Your task to perform on an android device: Clear the cart on walmart. Image 0: 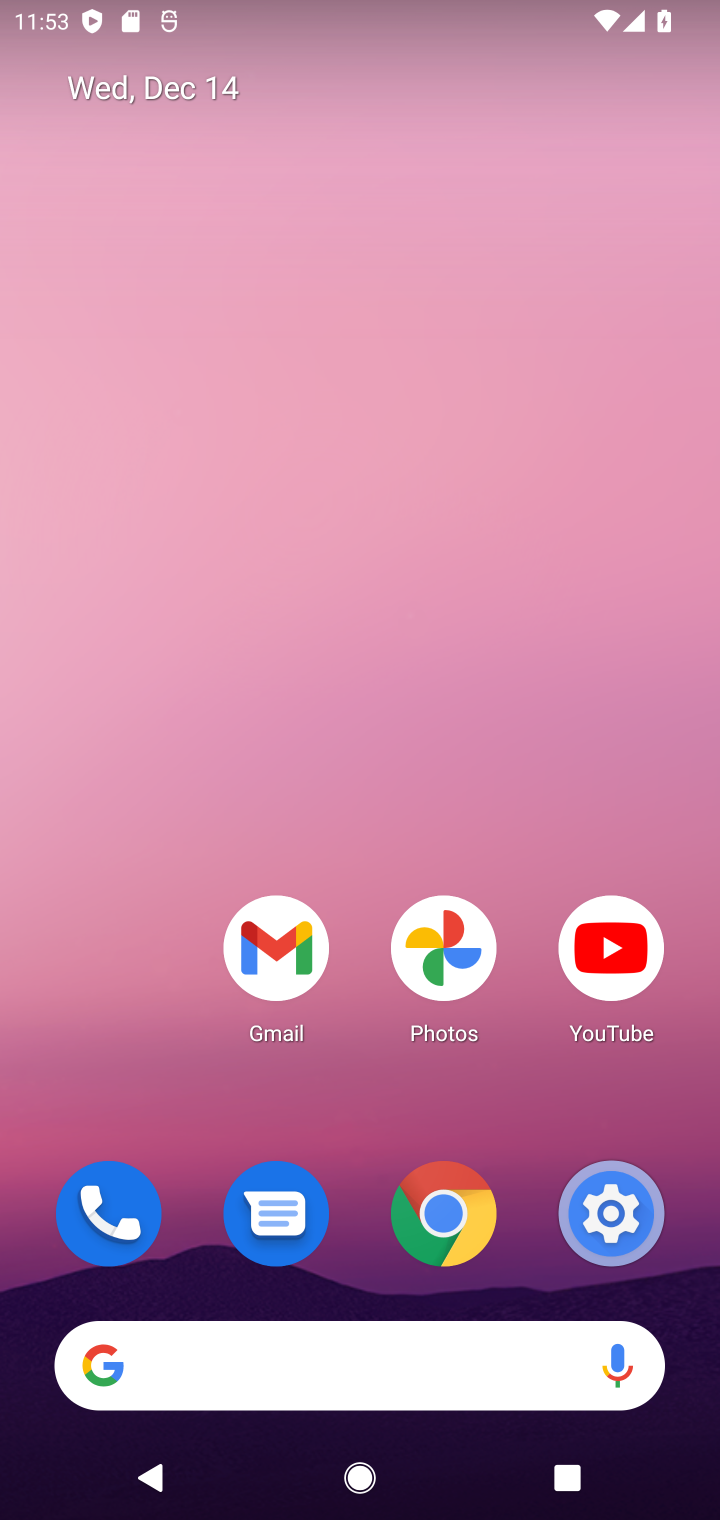
Step 0: click (469, 1246)
Your task to perform on an android device: Clear the cart on walmart. Image 1: 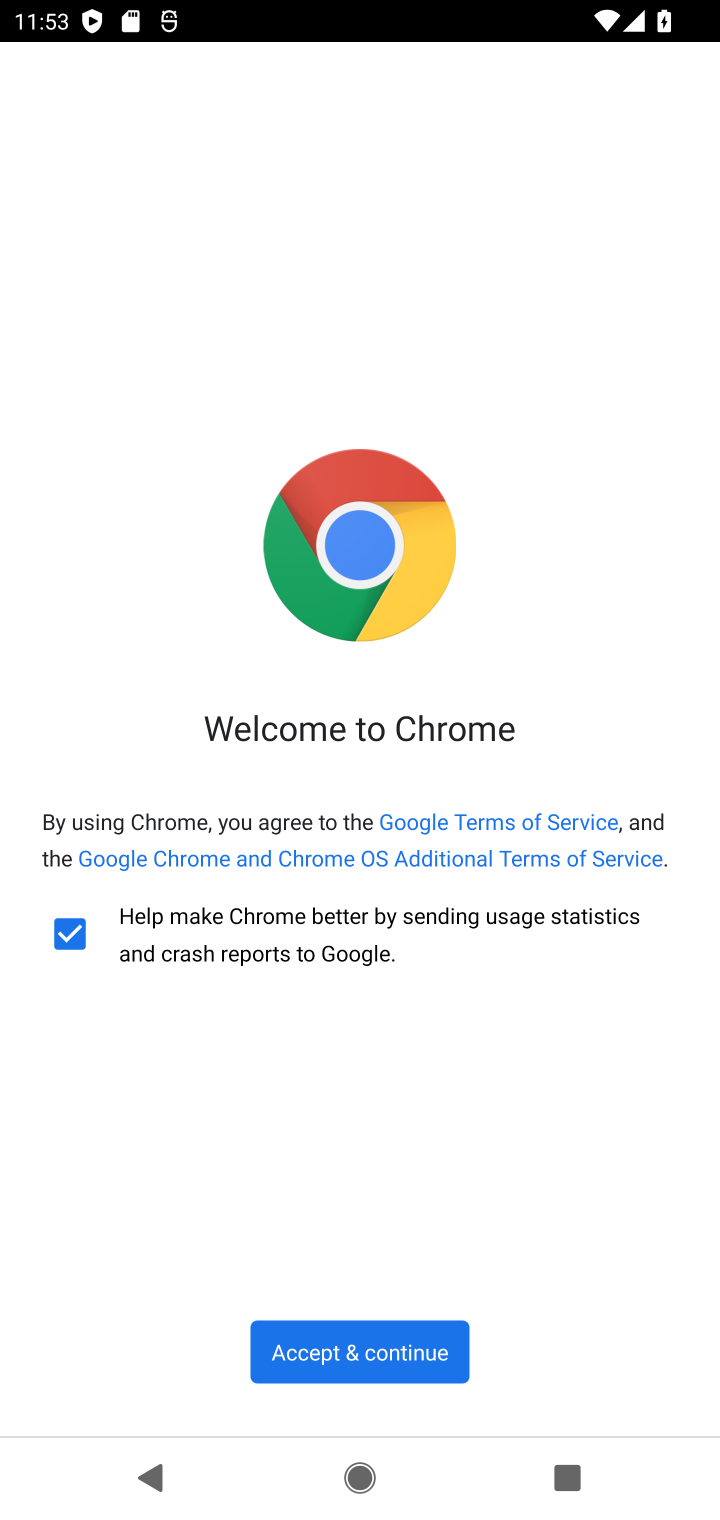
Step 1: click (395, 1337)
Your task to perform on an android device: Clear the cart on walmart. Image 2: 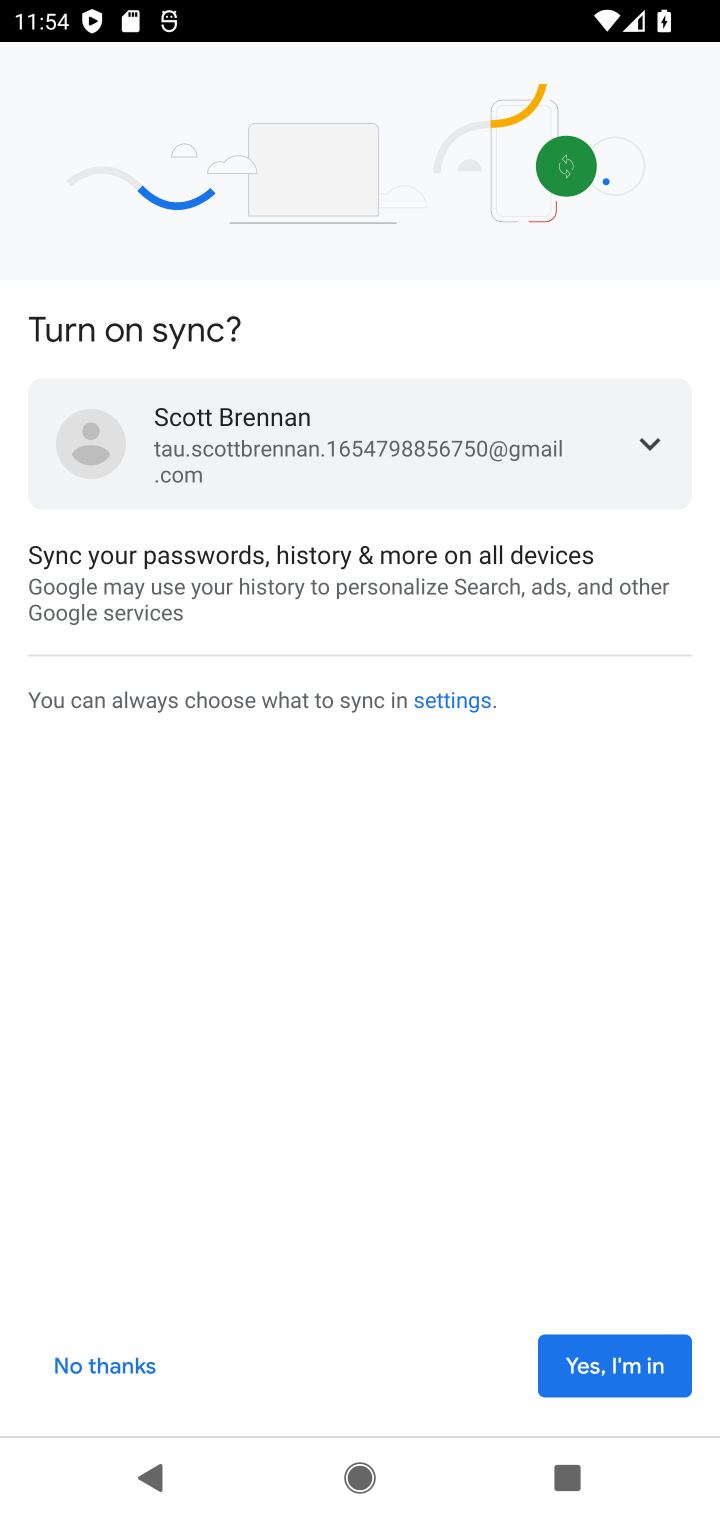
Step 2: click (630, 1373)
Your task to perform on an android device: Clear the cart on walmart. Image 3: 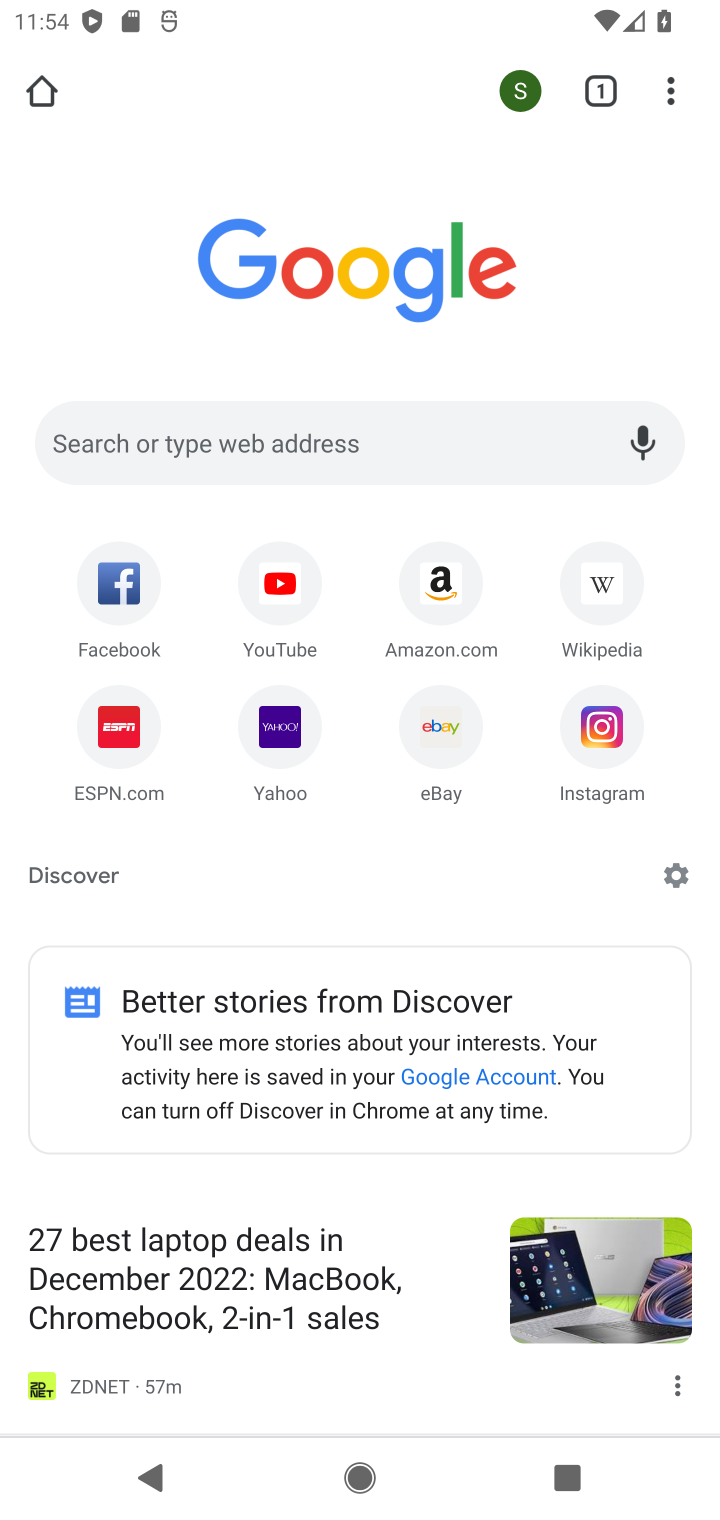
Step 3: task complete